Your task to perform on an android device: empty trash in the gmail app Image 0: 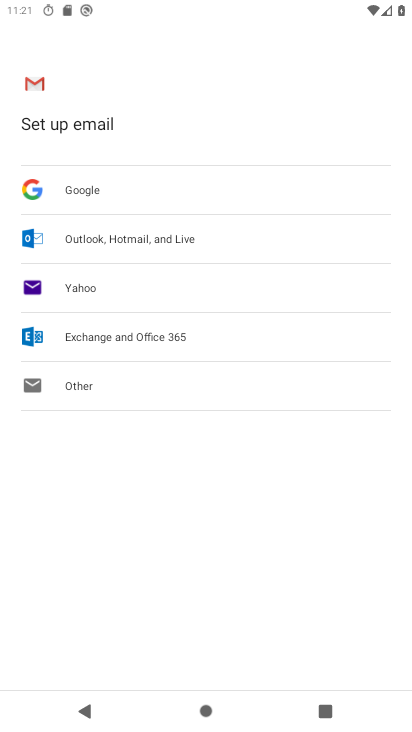
Step 0: press home button
Your task to perform on an android device: empty trash in the gmail app Image 1: 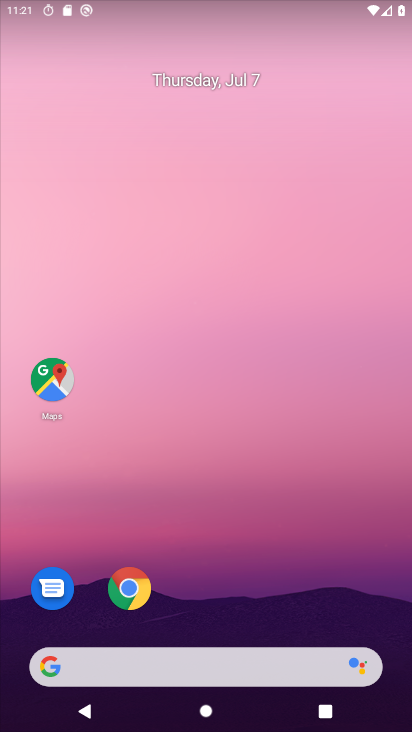
Step 1: drag from (190, 661) to (376, 122)
Your task to perform on an android device: empty trash in the gmail app Image 2: 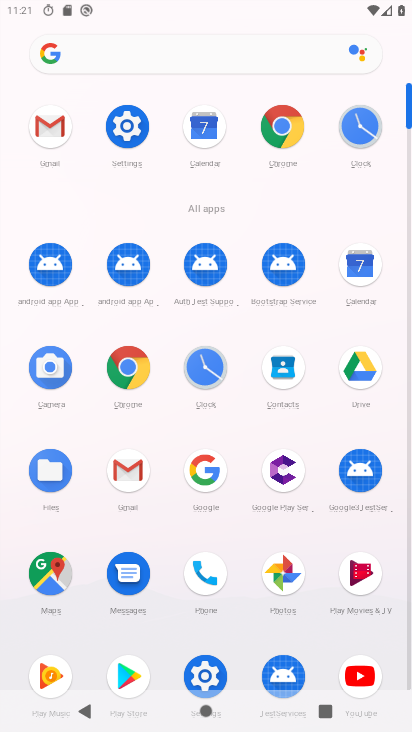
Step 2: click (125, 477)
Your task to perform on an android device: empty trash in the gmail app Image 3: 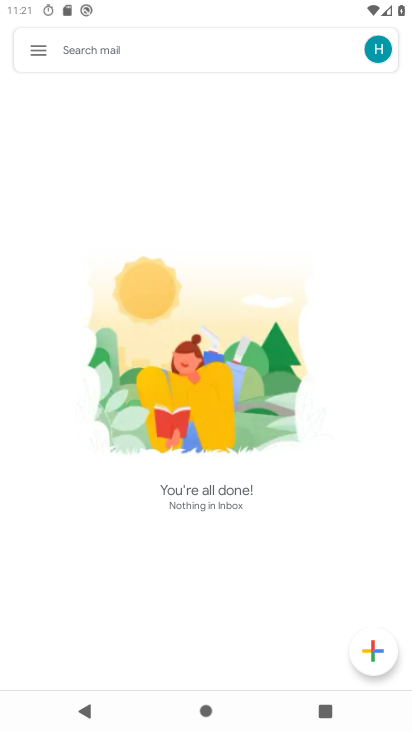
Step 3: click (27, 42)
Your task to perform on an android device: empty trash in the gmail app Image 4: 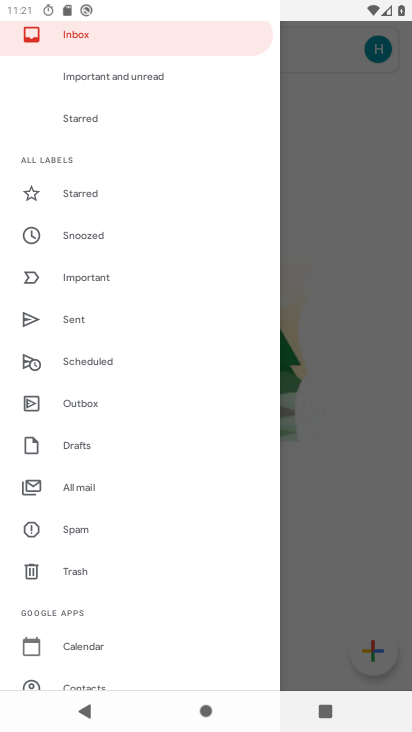
Step 4: click (75, 571)
Your task to perform on an android device: empty trash in the gmail app Image 5: 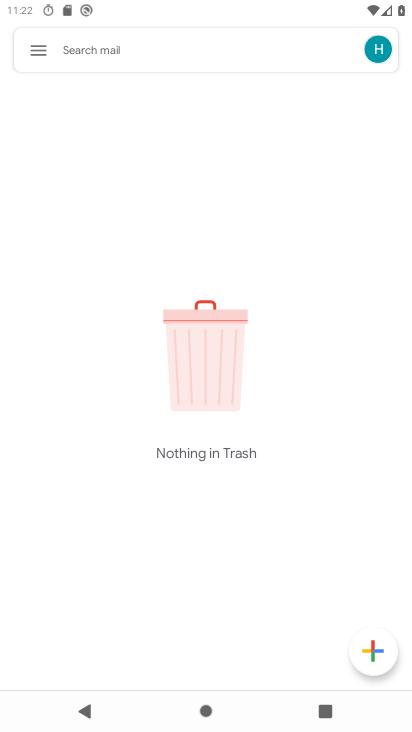
Step 5: task complete